Your task to perform on an android device: Go to Wikipedia Image 0: 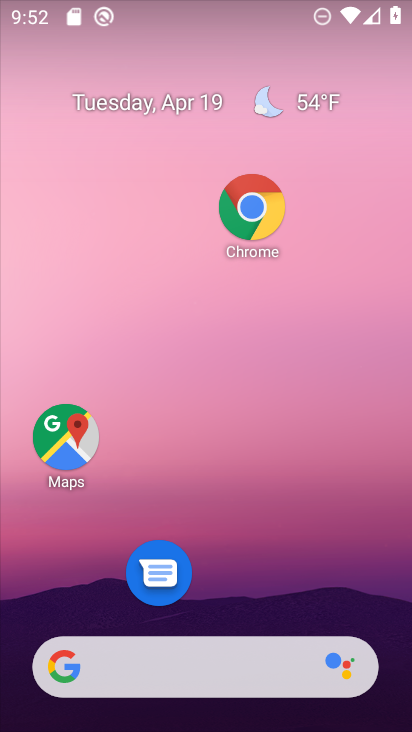
Step 0: drag from (272, 420) to (330, 205)
Your task to perform on an android device: Go to Wikipedia Image 1: 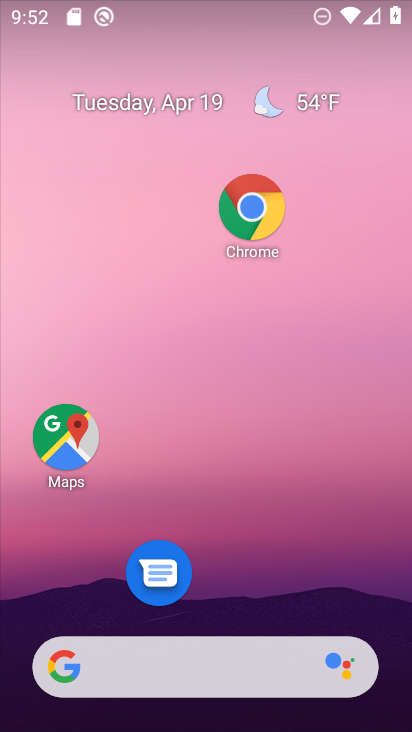
Step 1: drag from (259, 650) to (313, 203)
Your task to perform on an android device: Go to Wikipedia Image 2: 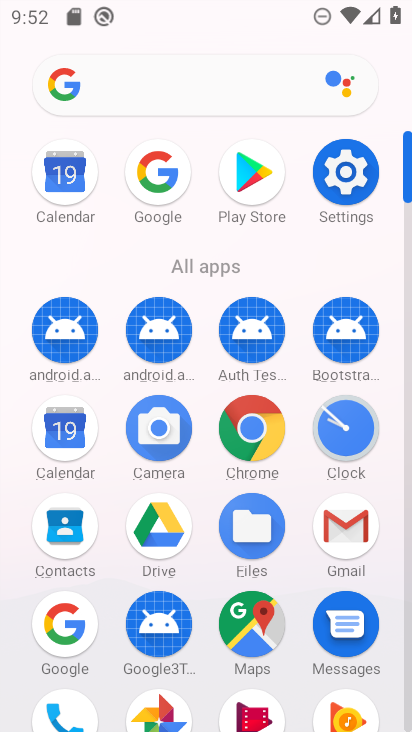
Step 2: click (146, 178)
Your task to perform on an android device: Go to Wikipedia Image 3: 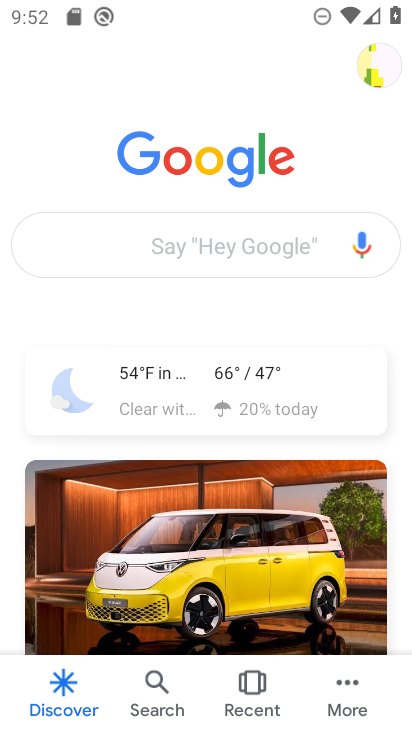
Step 3: click (174, 251)
Your task to perform on an android device: Go to Wikipedia Image 4: 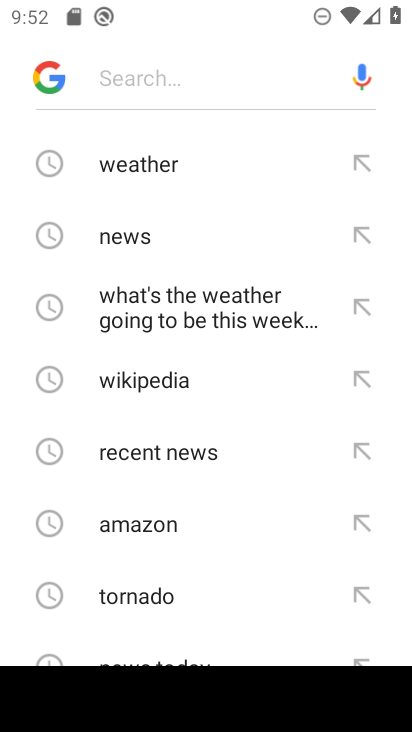
Step 4: click (173, 390)
Your task to perform on an android device: Go to Wikipedia Image 5: 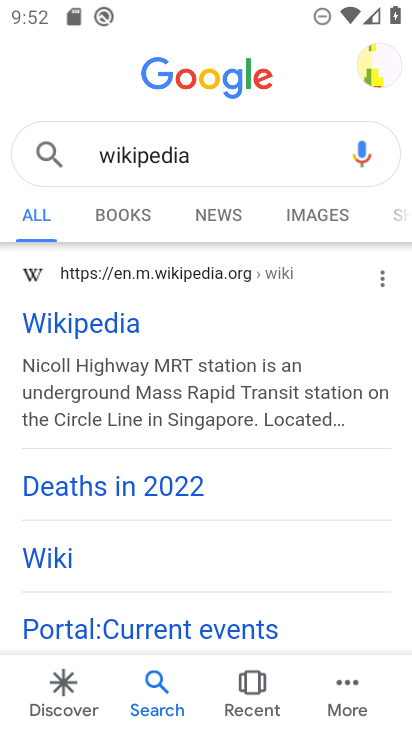
Step 5: click (53, 330)
Your task to perform on an android device: Go to Wikipedia Image 6: 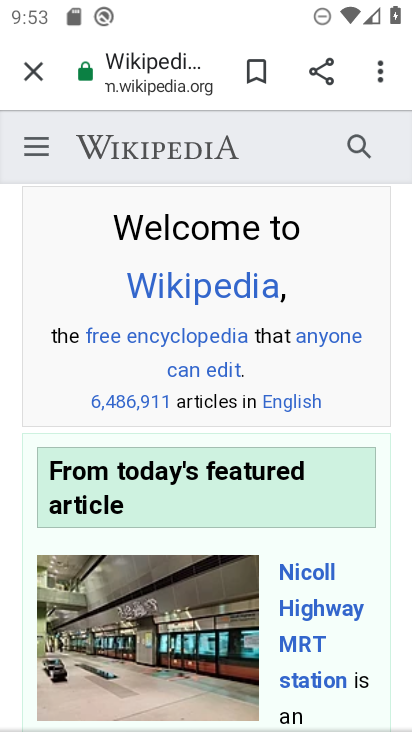
Step 6: task complete